Your task to perform on an android device: snooze an email in the gmail app Image 0: 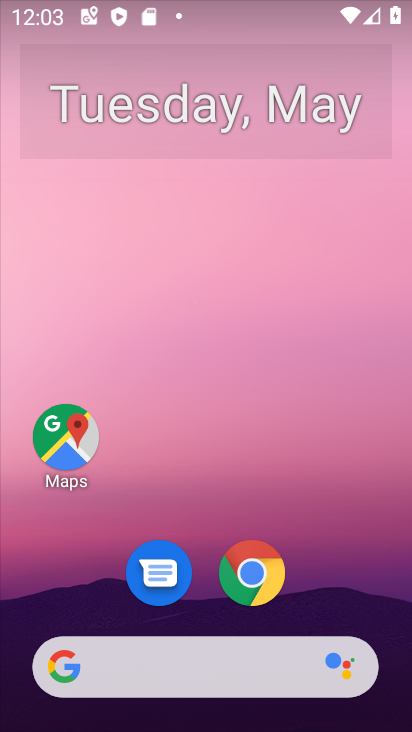
Step 0: drag from (357, 573) to (249, 58)
Your task to perform on an android device: snooze an email in the gmail app Image 1: 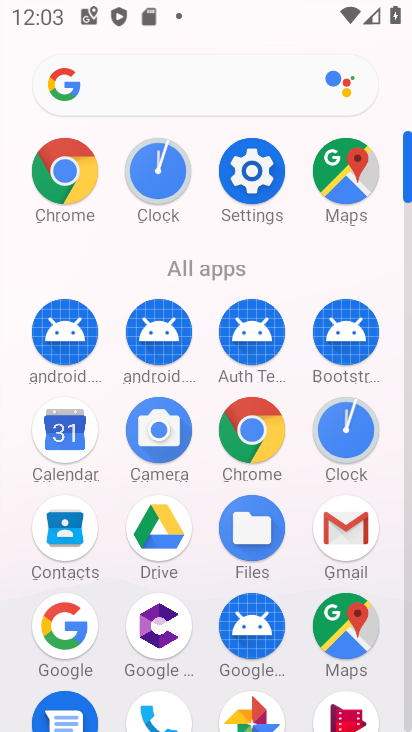
Step 1: click (347, 503)
Your task to perform on an android device: snooze an email in the gmail app Image 2: 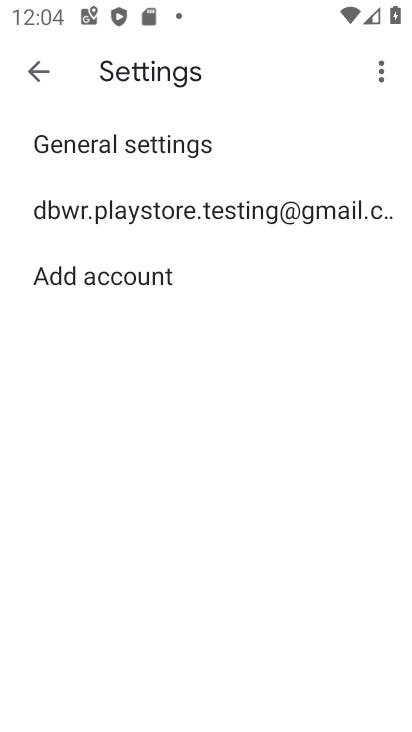
Step 2: click (61, 193)
Your task to perform on an android device: snooze an email in the gmail app Image 3: 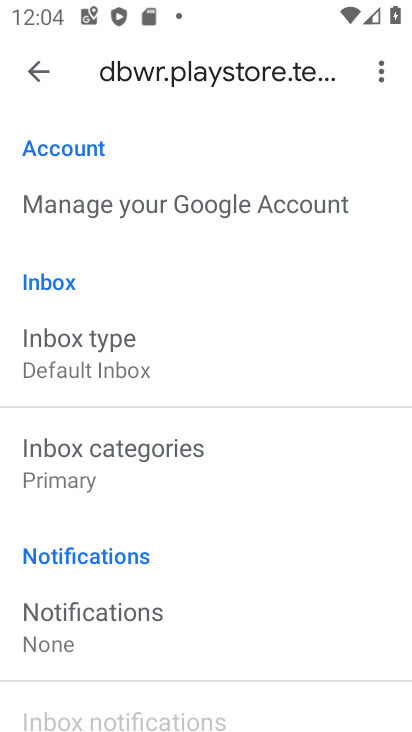
Step 3: click (45, 83)
Your task to perform on an android device: snooze an email in the gmail app Image 4: 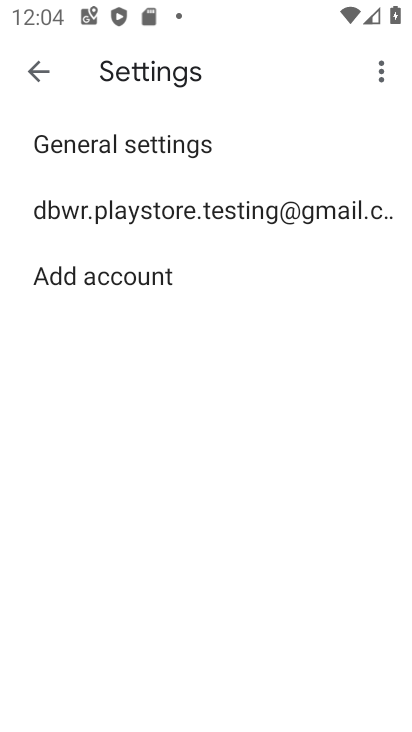
Step 4: click (85, 199)
Your task to perform on an android device: snooze an email in the gmail app Image 5: 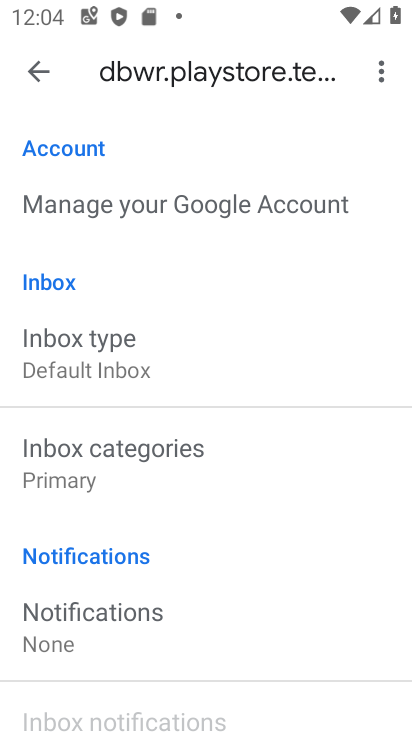
Step 5: click (32, 88)
Your task to perform on an android device: snooze an email in the gmail app Image 6: 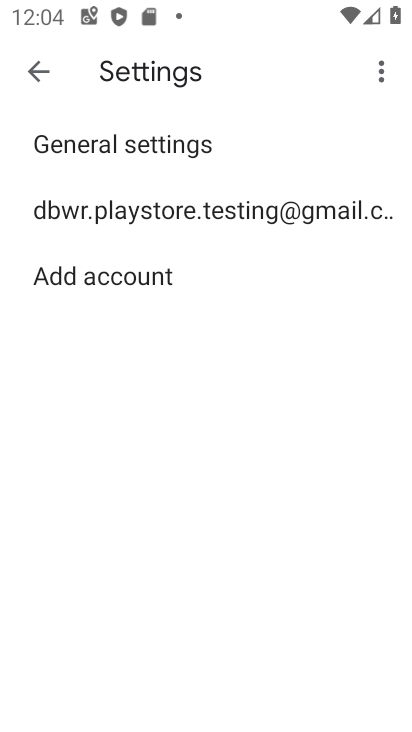
Step 6: click (32, 88)
Your task to perform on an android device: snooze an email in the gmail app Image 7: 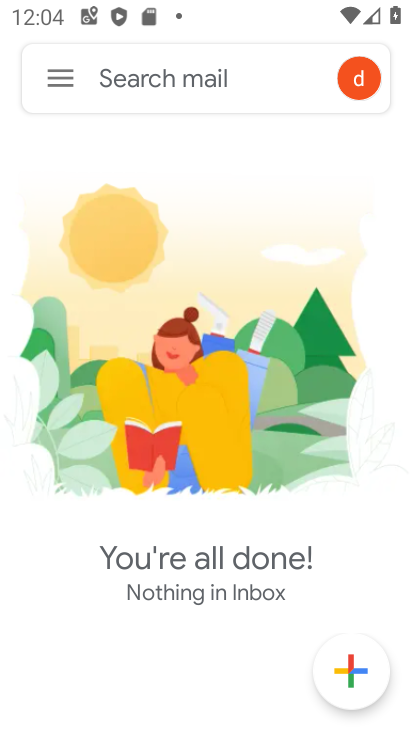
Step 7: click (57, 83)
Your task to perform on an android device: snooze an email in the gmail app Image 8: 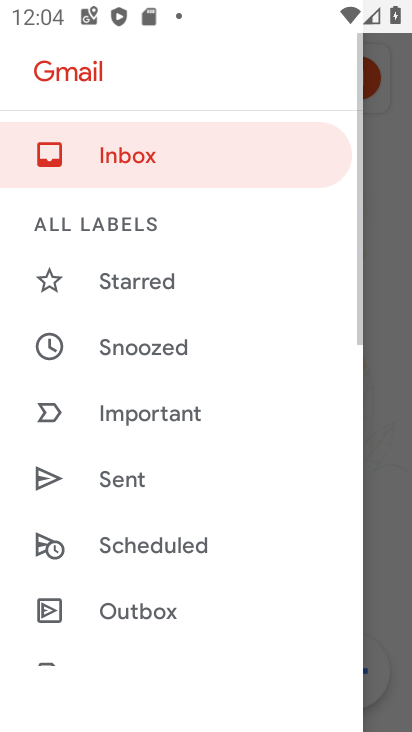
Step 8: click (166, 359)
Your task to perform on an android device: snooze an email in the gmail app Image 9: 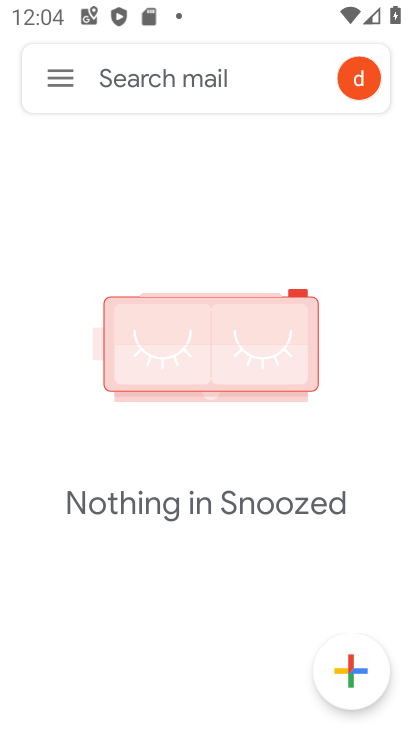
Step 9: task complete